Your task to perform on an android device: Do I have any events today? Image 0: 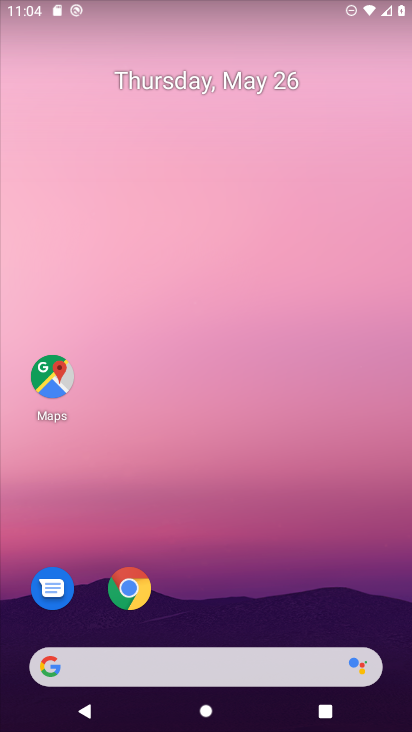
Step 0: drag from (379, 612) to (330, 69)
Your task to perform on an android device: Do I have any events today? Image 1: 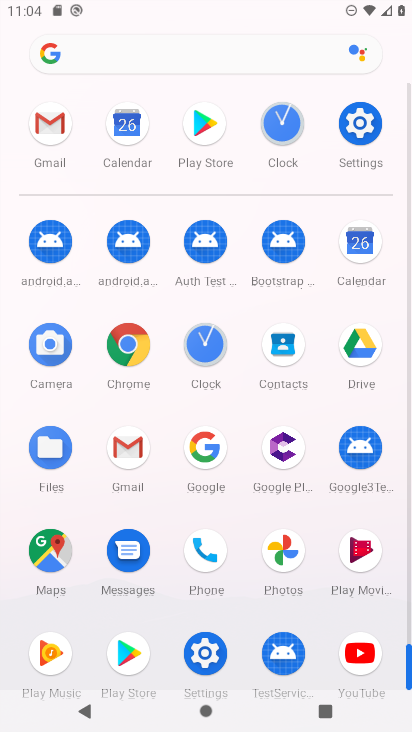
Step 1: click (357, 240)
Your task to perform on an android device: Do I have any events today? Image 2: 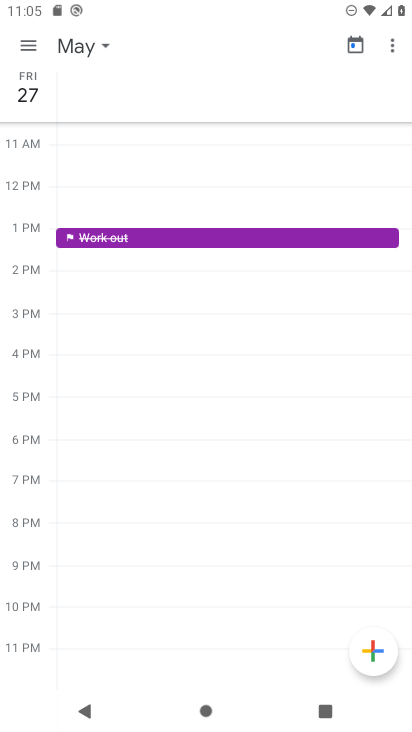
Step 2: click (100, 48)
Your task to perform on an android device: Do I have any events today? Image 3: 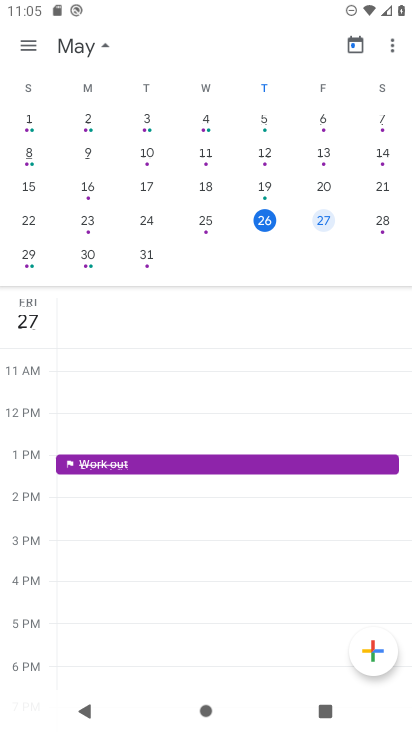
Step 3: click (267, 214)
Your task to perform on an android device: Do I have any events today? Image 4: 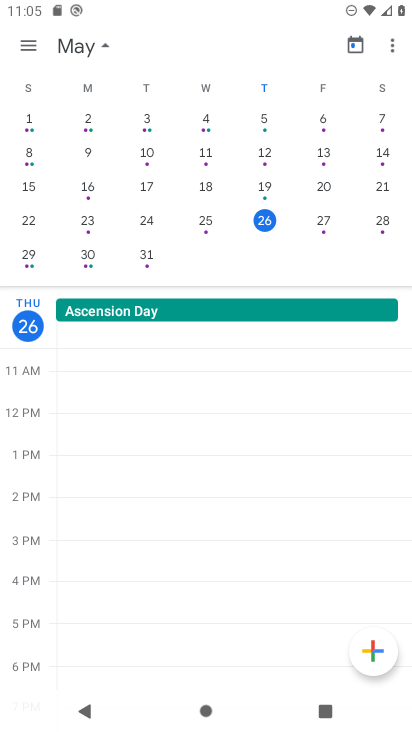
Step 4: task complete